Your task to perform on an android device: turn on showing notifications on the lock screen Image 0: 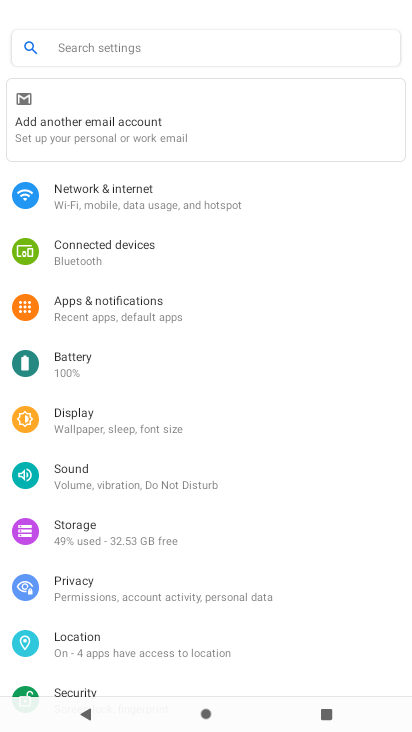
Step 0: click (135, 304)
Your task to perform on an android device: turn on showing notifications on the lock screen Image 1: 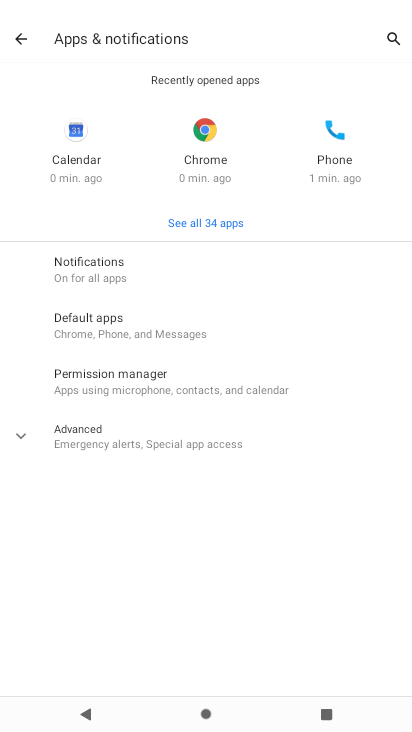
Step 1: click (86, 261)
Your task to perform on an android device: turn on showing notifications on the lock screen Image 2: 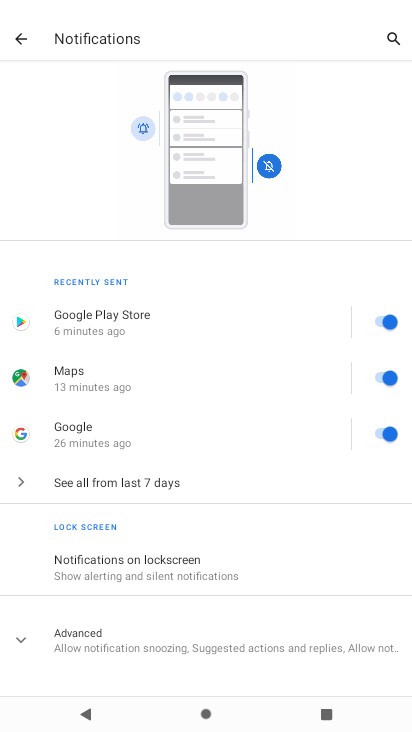
Step 2: click (136, 566)
Your task to perform on an android device: turn on showing notifications on the lock screen Image 3: 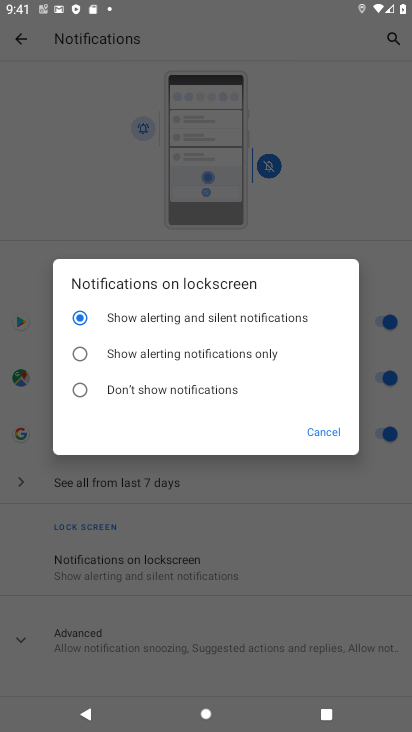
Step 3: task complete